Your task to perform on an android device: turn on data saver in the chrome app Image 0: 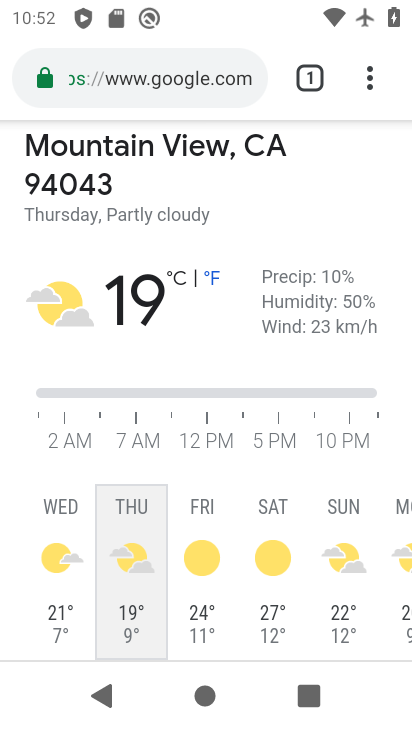
Step 0: drag from (367, 76) to (98, 546)
Your task to perform on an android device: turn on data saver in the chrome app Image 1: 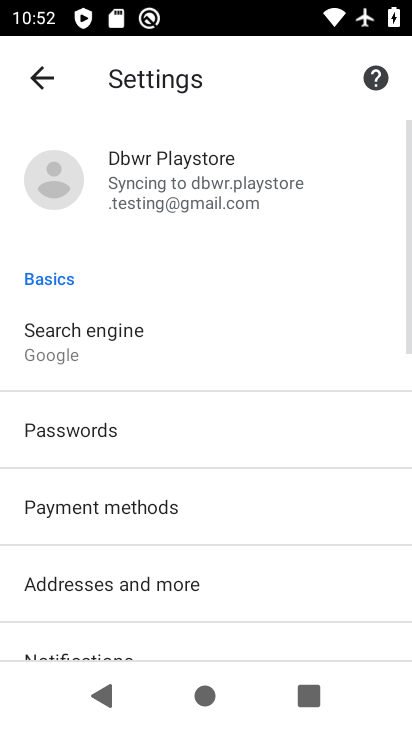
Step 1: drag from (237, 564) to (267, 195)
Your task to perform on an android device: turn on data saver in the chrome app Image 2: 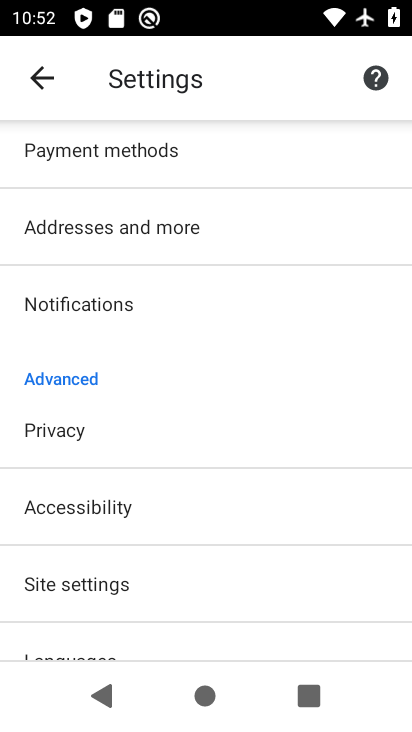
Step 2: drag from (221, 597) to (219, 211)
Your task to perform on an android device: turn on data saver in the chrome app Image 3: 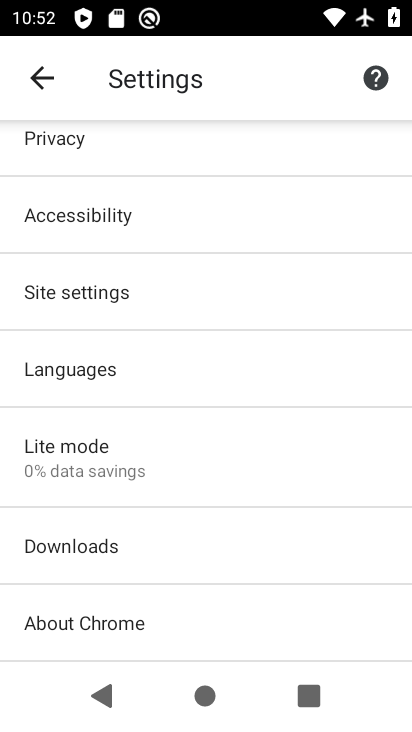
Step 3: click (143, 460)
Your task to perform on an android device: turn on data saver in the chrome app Image 4: 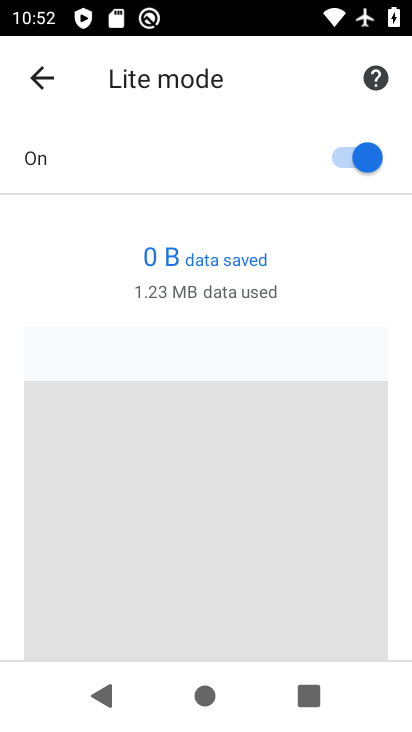
Step 4: task complete